Your task to perform on an android device: Open Yahoo.com Image 0: 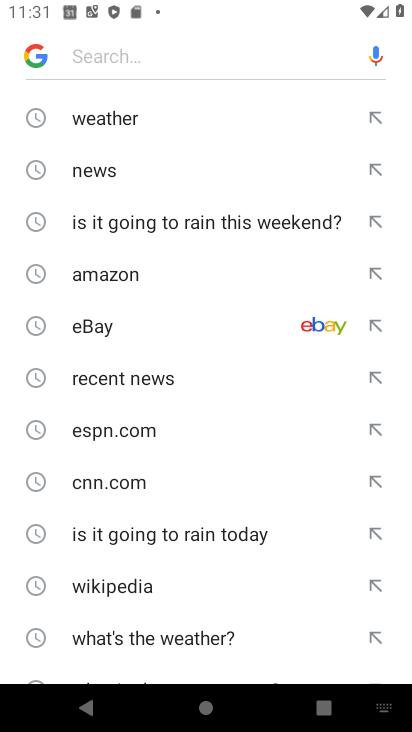
Step 0: press home button
Your task to perform on an android device: Open Yahoo.com Image 1: 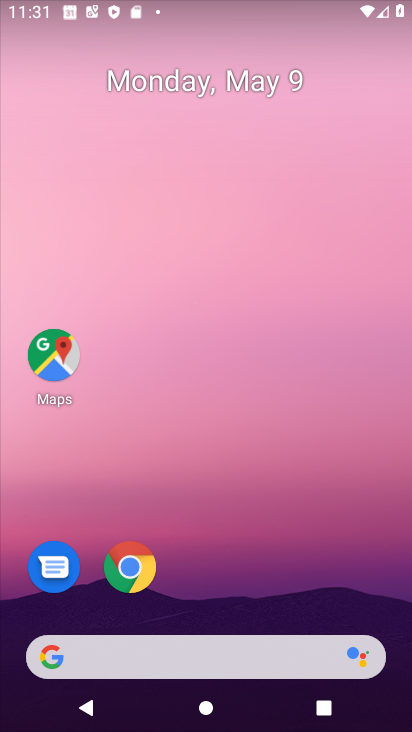
Step 1: click (146, 551)
Your task to perform on an android device: Open Yahoo.com Image 2: 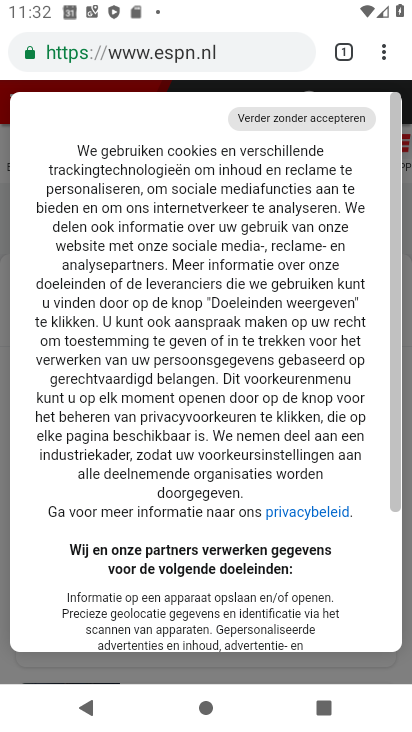
Step 2: click (192, 55)
Your task to perform on an android device: Open Yahoo.com Image 3: 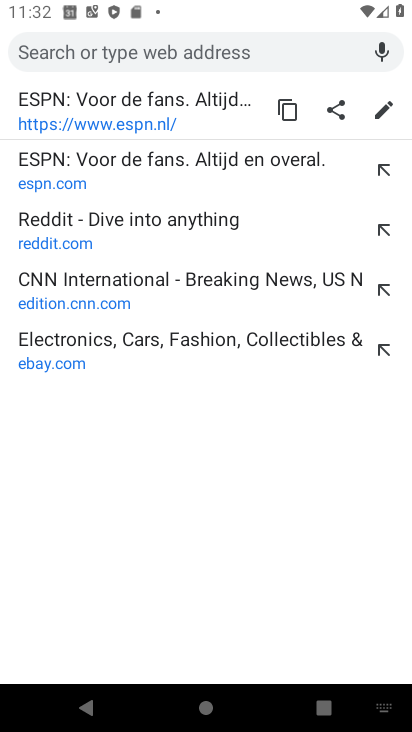
Step 3: type "yahoo.com"
Your task to perform on an android device: Open Yahoo.com Image 4: 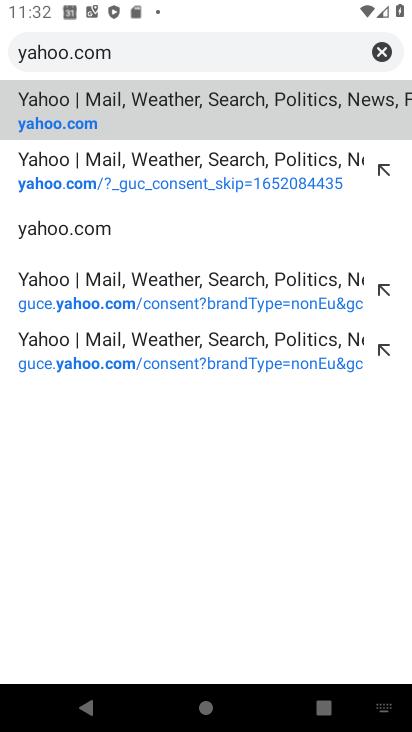
Step 4: click (215, 118)
Your task to perform on an android device: Open Yahoo.com Image 5: 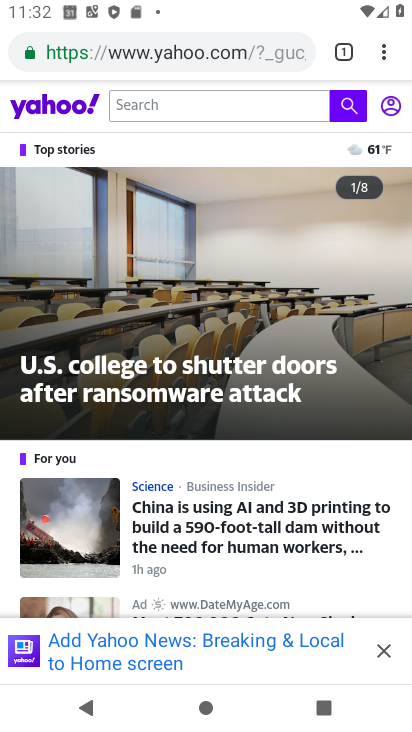
Step 5: task complete